Your task to perform on an android device: turn off notifications in google photos Image 0: 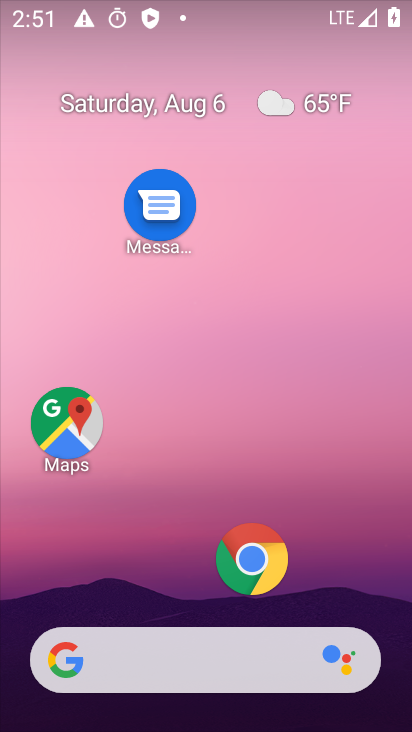
Step 0: drag from (182, 590) to (150, 228)
Your task to perform on an android device: turn off notifications in google photos Image 1: 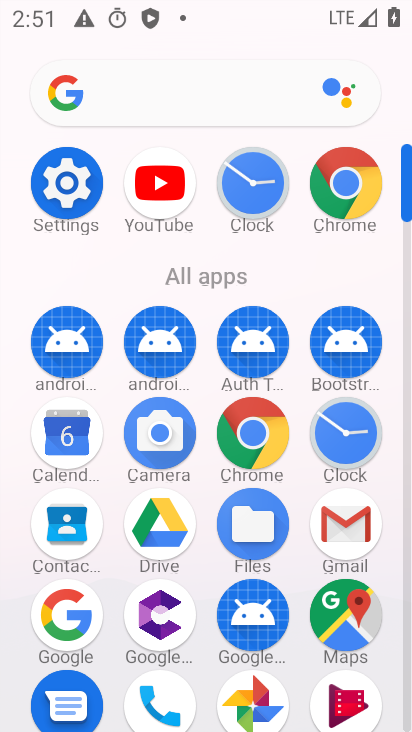
Step 1: click (60, 179)
Your task to perform on an android device: turn off notifications in google photos Image 2: 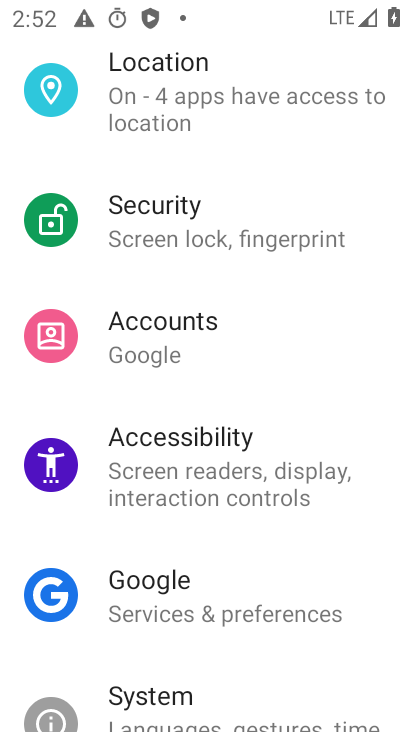
Step 2: drag from (237, 499) to (218, 299)
Your task to perform on an android device: turn off notifications in google photos Image 3: 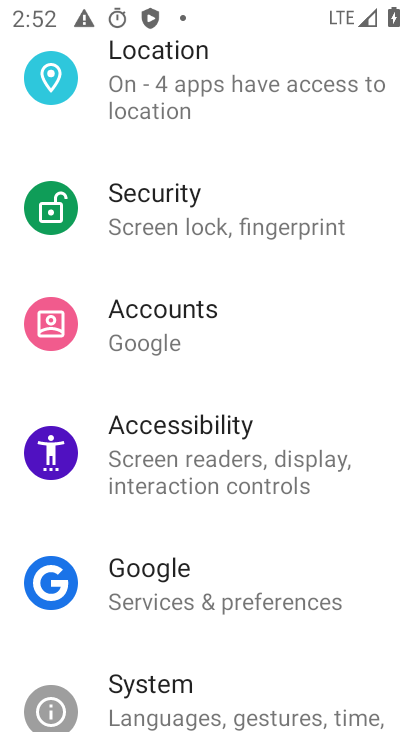
Step 3: drag from (184, 521) to (267, 730)
Your task to perform on an android device: turn off notifications in google photos Image 4: 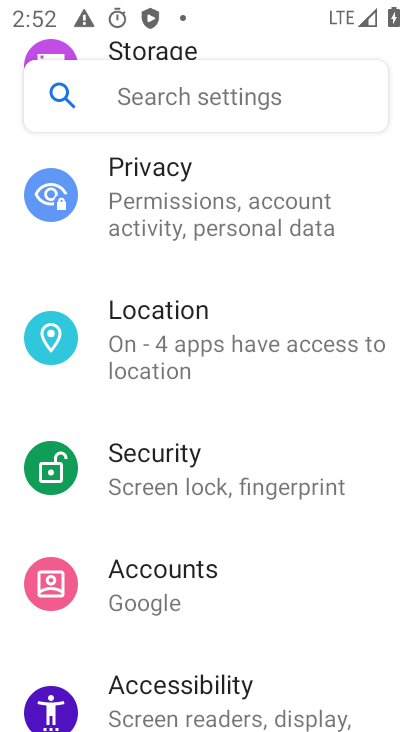
Step 4: drag from (277, 441) to (248, 710)
Your task to perform on an android device: turn off notifications in google photos Image 5: 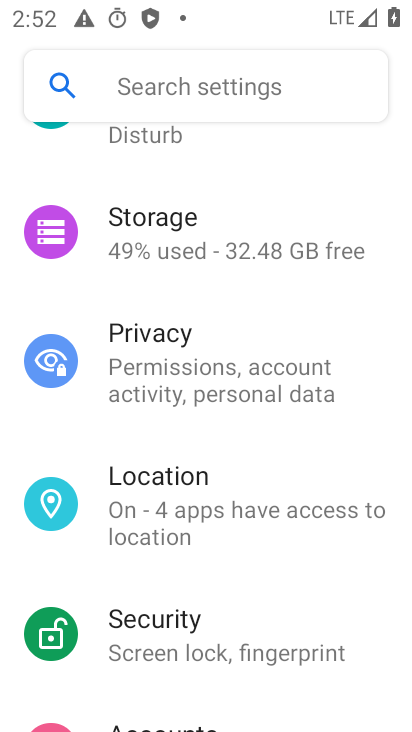
Step 5: drag from (233, 512) to (223, 720)
Your task to perform on an android device: turn off notifications in google photos Image 6: 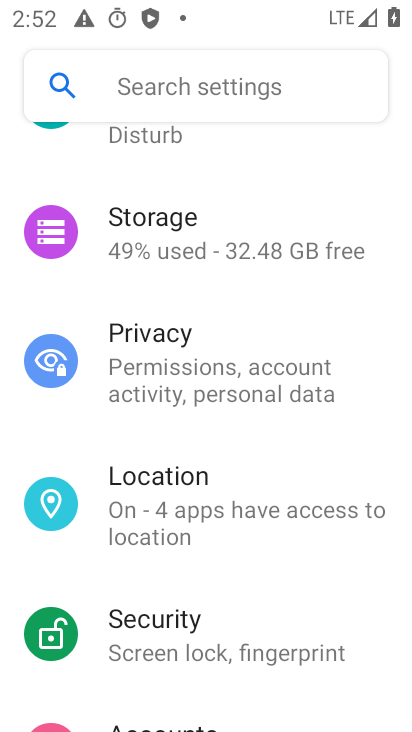
Step 6: drag from (205, 193) to (214, 677)
Your task to perform on an android device: turn off notifications in google photos Image 7: 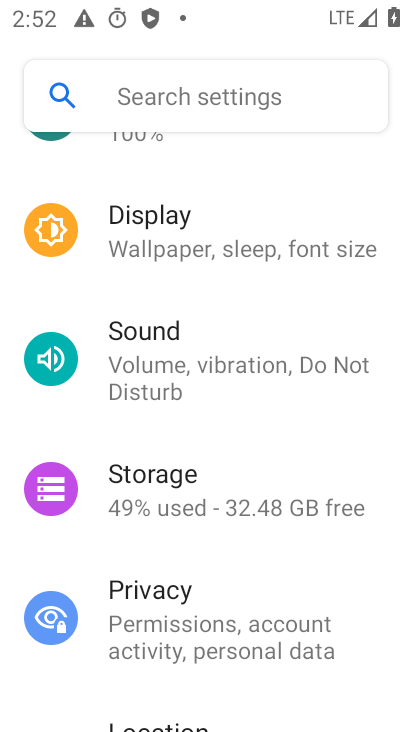
Step 7: drag from (250, 335) to (237, 549)
Your task to perform on an android device: turn off notifications in google photos Image 8: 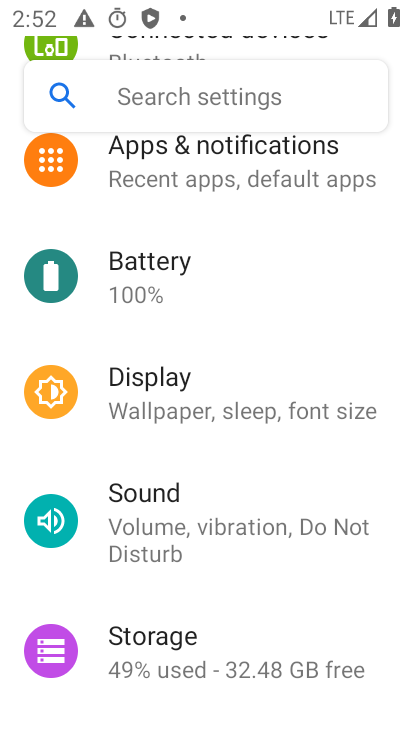
Step 8: click (224, 174)
Your task to perform on an android device: turn off notifications in google photos Image 9: 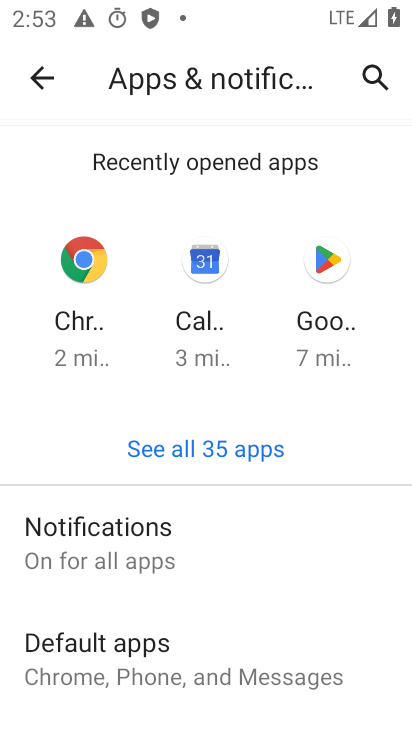
Step 9: drag from (216, 544) to (259, 190)
Your task to perform on an android device: turn off notifications in google photos Image 10: 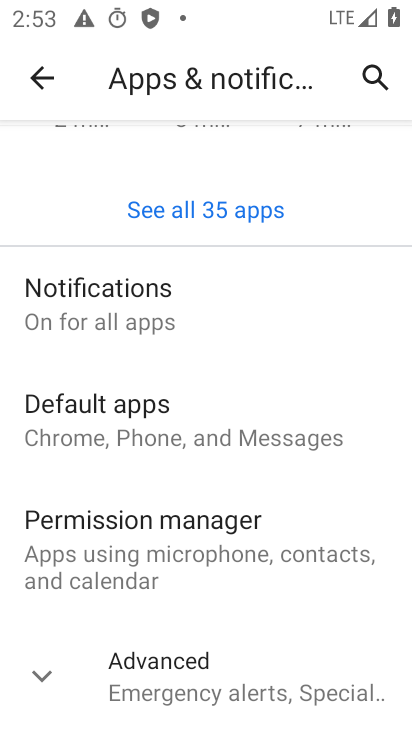
Step 10: press home button
Your task to perform on an android device: turn off notifications in google photos Image 11: 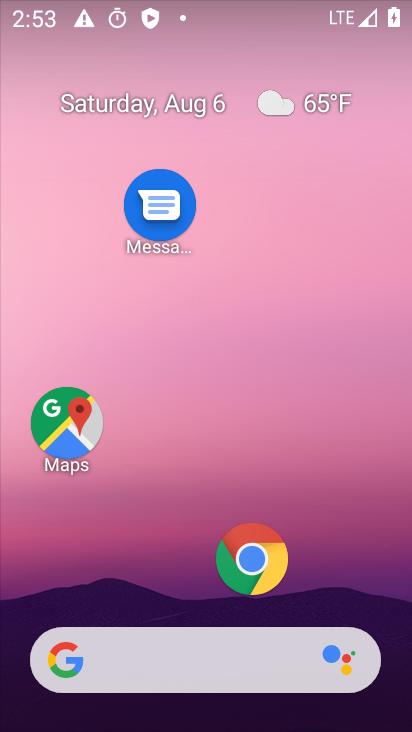
Step 11: drag from (197, 516) to (187, 239)
Your task to perform on an android device: turn off notifications in google photos Image 12: 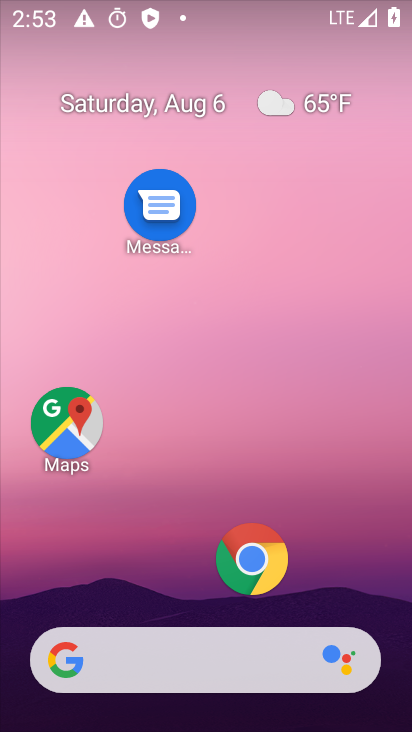
Step 12: drag from (180, 571) to (202, 13)
Your task to perform on an android device: turn off notifications in google photos Image 13: 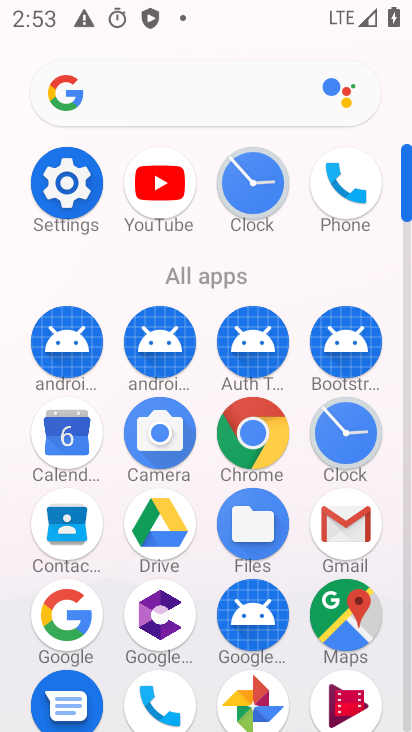
Step 13: click (255, 692)
Your task to perform on an android device: turn off notifications in google photos Image 14: 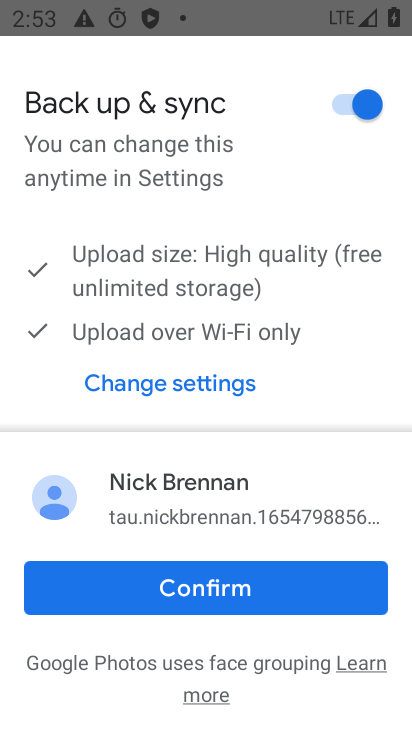
Step 14: click (223, 603)
Your task to perform on an android device: turn off notifications in google photos Image 15: 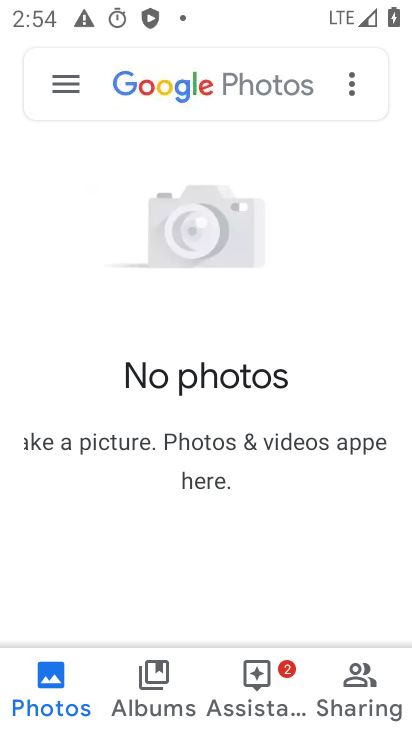
Step 15: click (60, 86)
Your task to perform on an android device: turn off notifications in google photos Image 16: 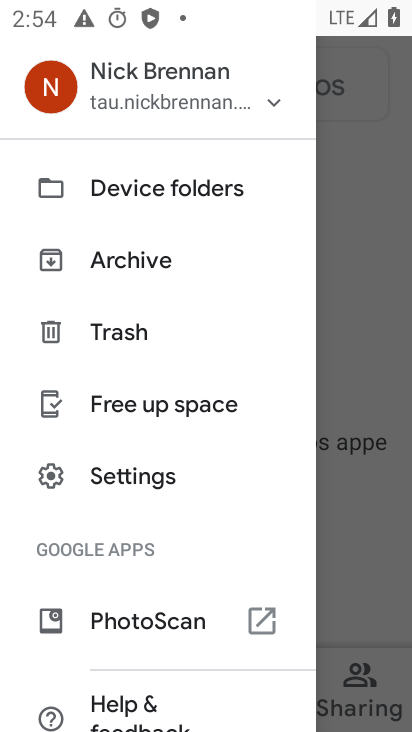
Step 16: click (117, 467)
Your task to perform on an android device: turn off notifications in google photos Image 17: 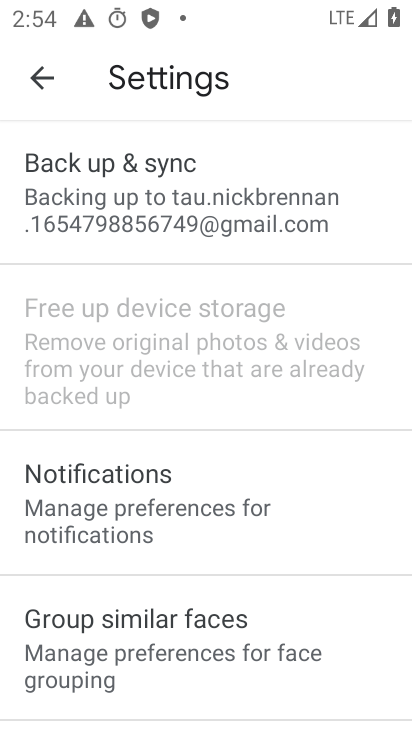
Step 17: click (87, 477)
Your task to perform on an android device: turn off notifications in google photos Image 18: 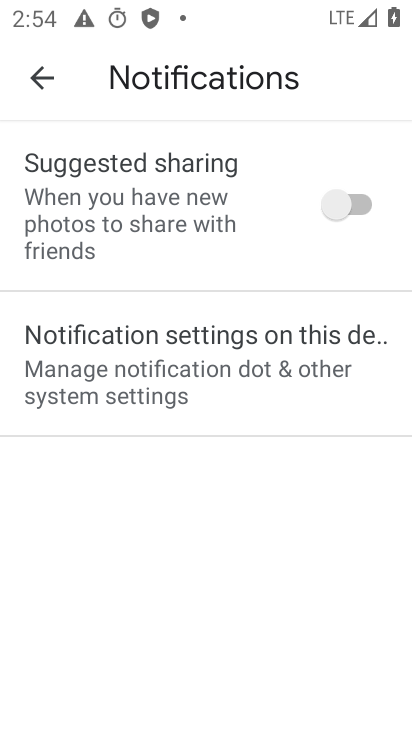
Step 18: click (207, 401)
Your task to perform on an android device: turn off notifications in google photos Image 19: 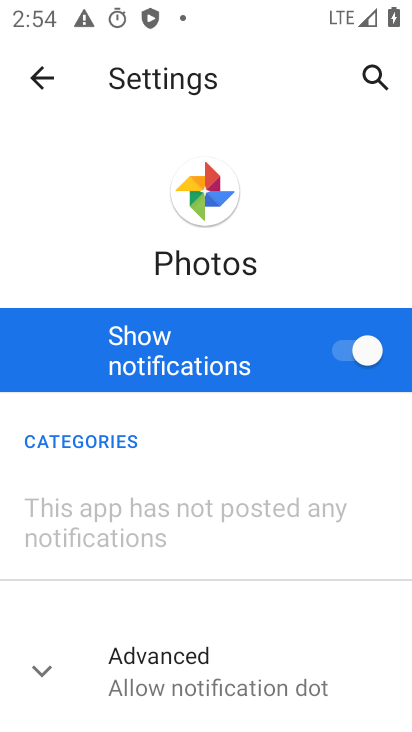
Step 19: click (335, 352)
Your task to perform on an android device: turn off notifications in google photos Image 20: 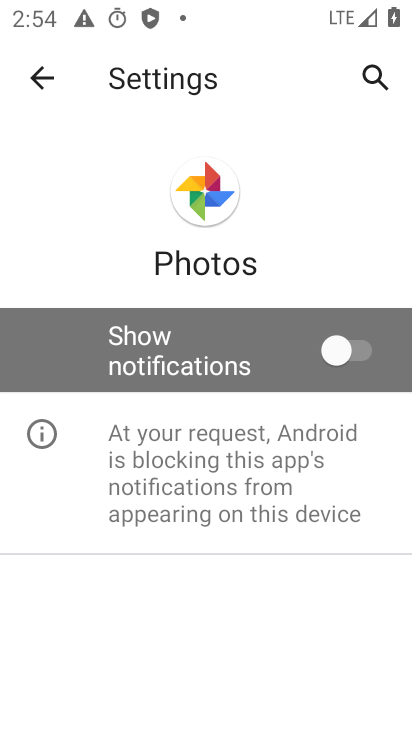
Step 20: task complete